Your task to perform on an android device: Open my contact list Image 0: 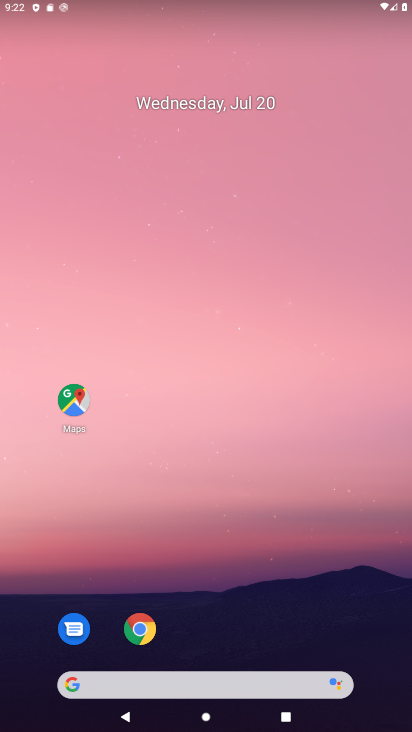
Step 0: press home button
Your task to perform on an android device: Open my contact list Image 1: 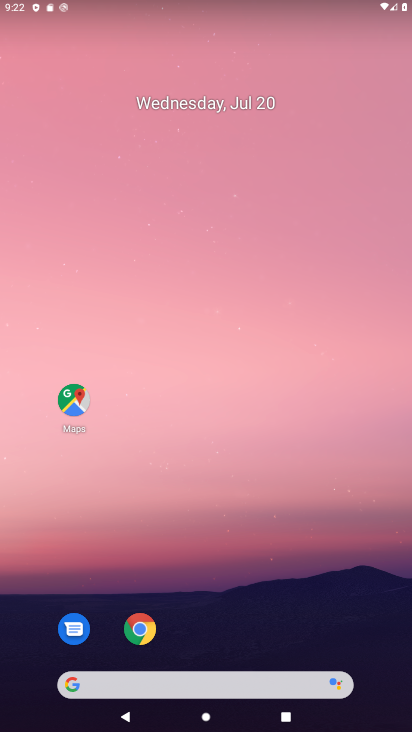
Step 1: drag from (267, 654) to (313, 29)
Your task to perform on an android device: Open my contact list Image 2: 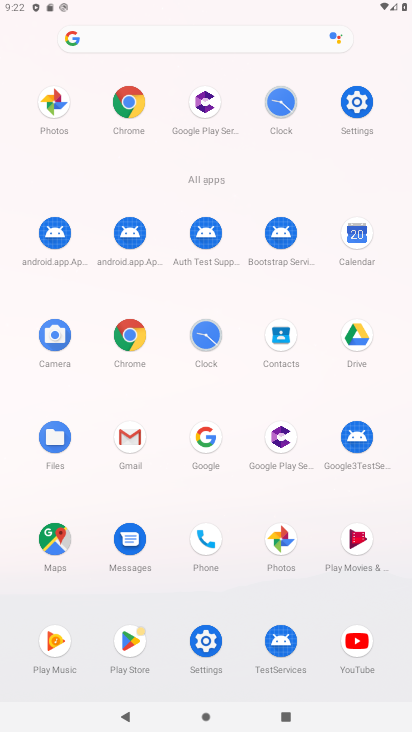
Step 2: click (278, 330)
Your task to perform on an android device: Open my contact list Image 3: 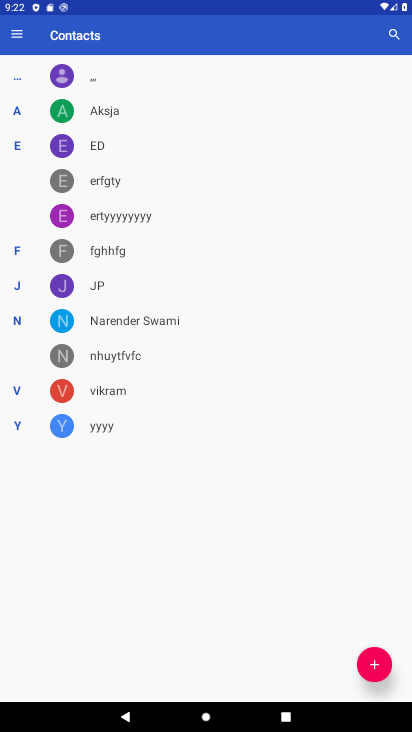
Step 3: task complete